Your task to perform on an android device: turn on priority inbox in the gmail app Image 0: 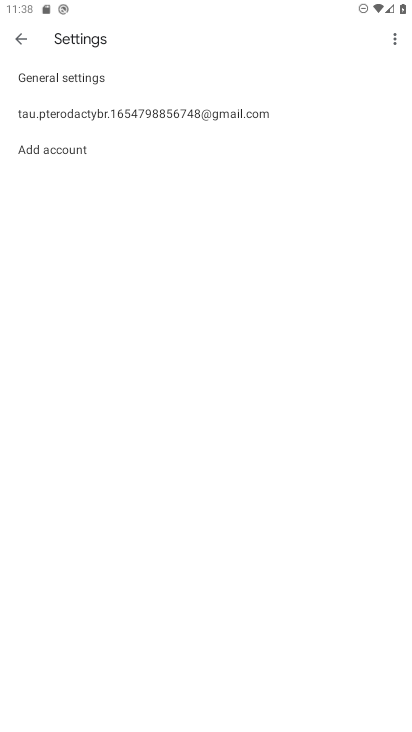
Step 0: click (163, 115)
Your task to perform on an android device: turn on priority inbox in the gmail app Image 1: 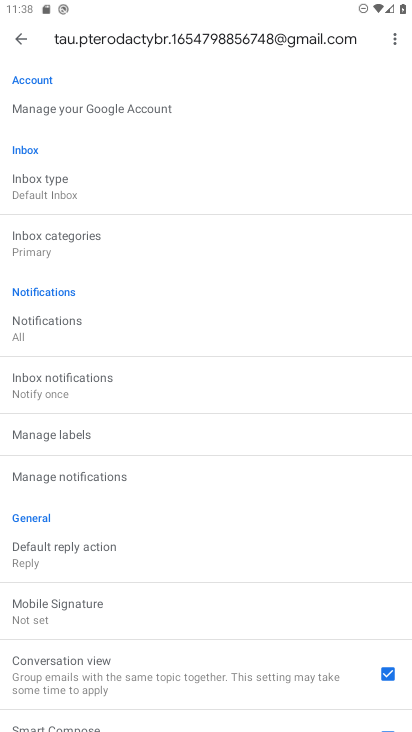
Step 1: click (32, 187)
Your task to perform on an android device: turn on priority inbox in the gmail app Image 2: 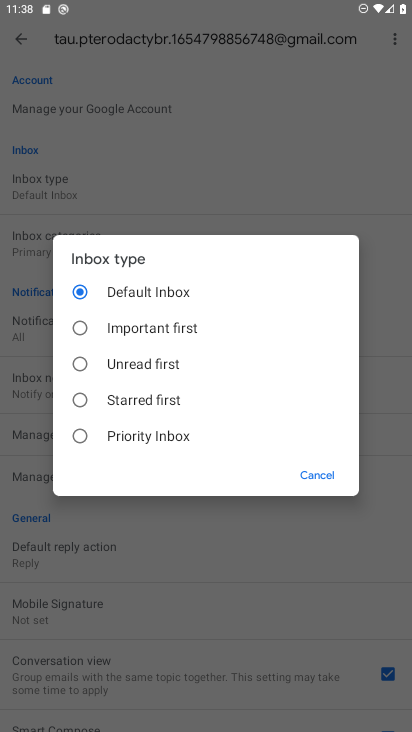
Step 2: click (101, 437)
Your task to perform on an android device: turn on priority inbox in the gmail app Image 3: 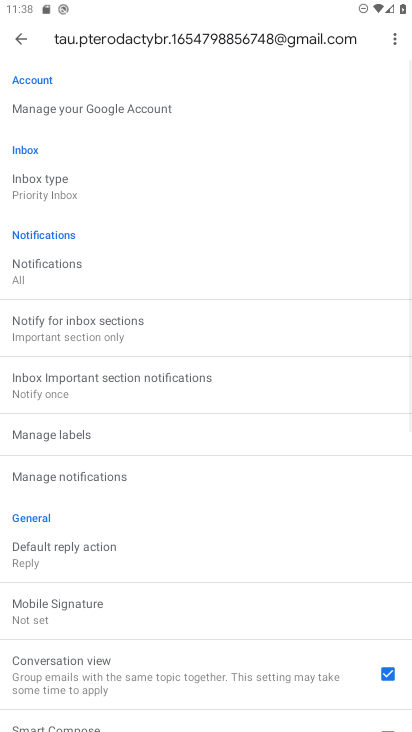
Step 3: task complete